Your task to perform on an android device: turn off data saver in the chrome app Image 0: 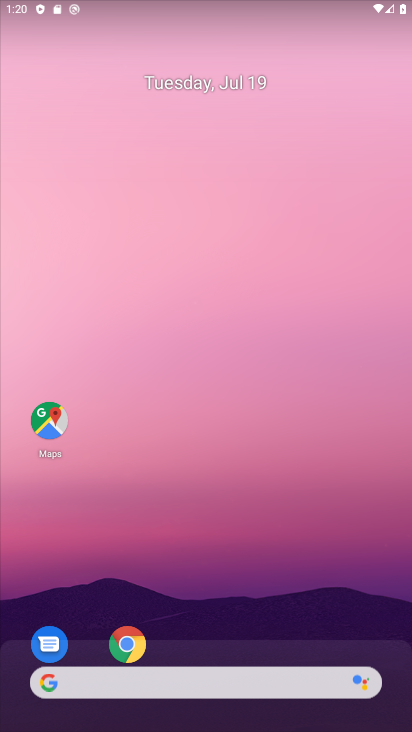
Step 0: click (126, 651)
Your task to perform on an android device: turn off data saver in the chrome app Image 1: 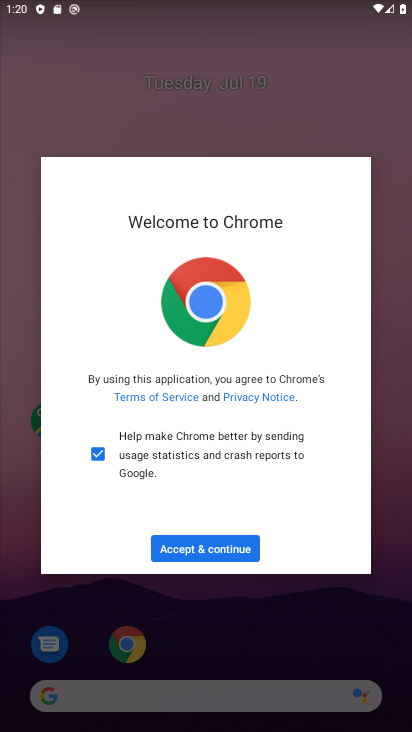
Step 1: click (185, 551)
Your task to perform on an android device: turn off data saver in the chrome app Image 2: 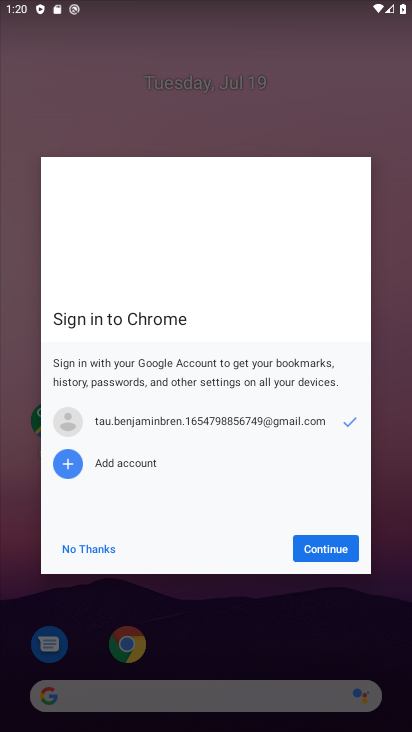
Step 2: click (336, 537)
Your task to perform on an android device: turn off data saver in the chrome app Image 3: 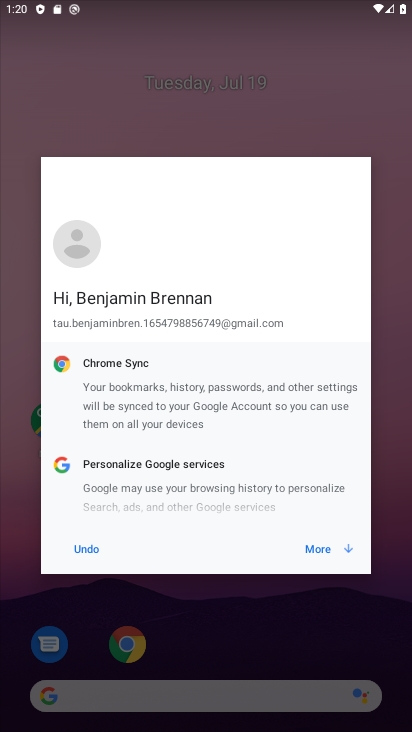
Step 3: click (320, 545)
Your task to perform on an android device: turn off data saver in the chrome app Image 4: 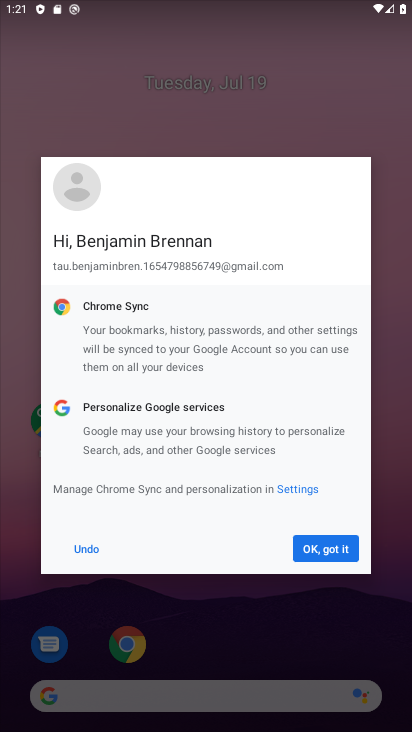
Step 4: click (332, 549)
Your task to perform on an android device: turn off data saver in the chrome app Image 5: 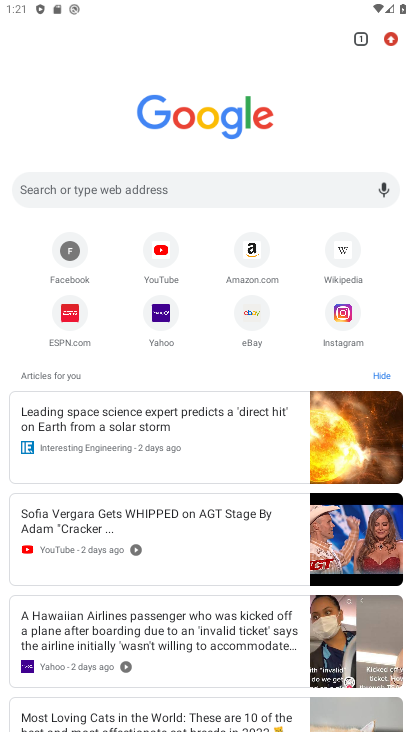
Step 5: click (390, 32)
Your task to perform on an android device: turn off data saver in the chrome app Image 6: 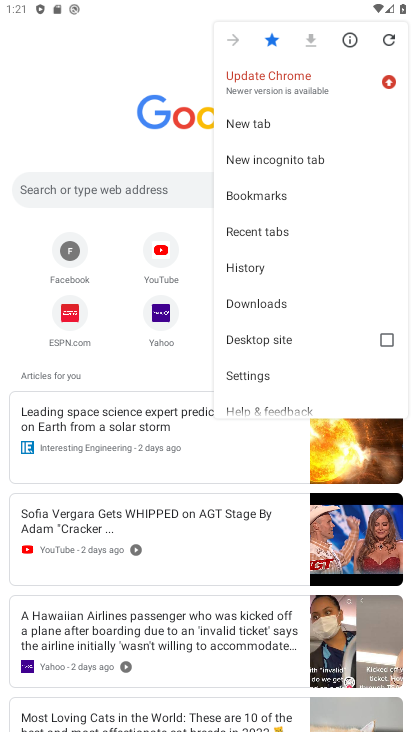
Step 6: click (260, 371)
Your task to perform on an android device: turn off data saver in the chrome app Image 7: 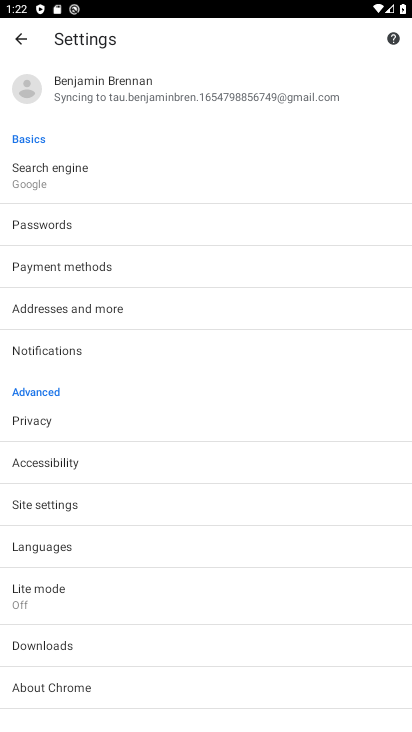
Step 7: click (56, 594)
Your task to perform on an android device: turn off data saver in the chrome app Image 8: 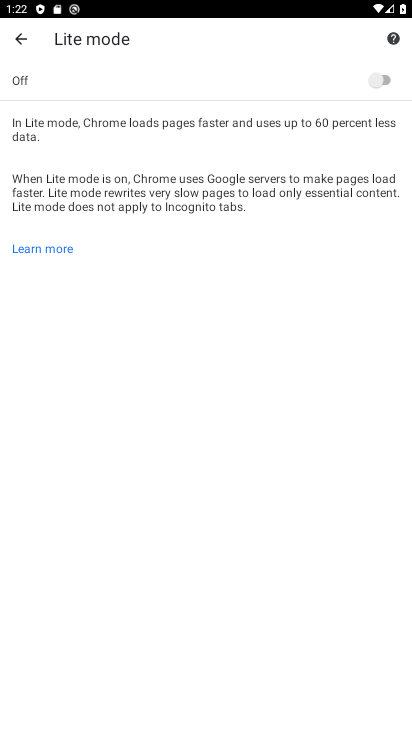
Step 8: task complete